Your task to perform on an android device: Open CNN.com Image 0: 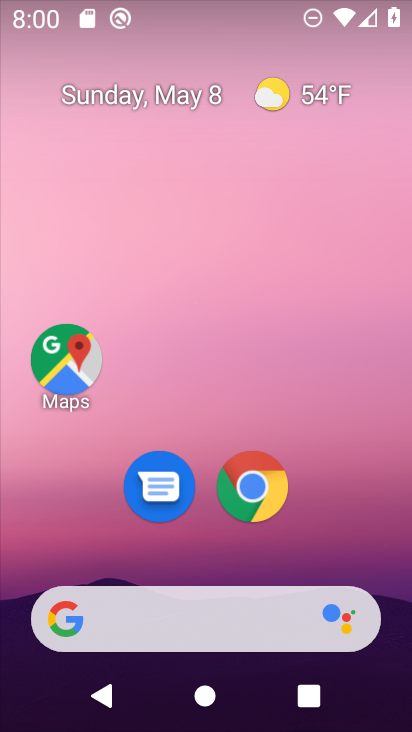
Step 0: click (241, 488)
Your task to perform on an android device: Open CNN.com Image 1: 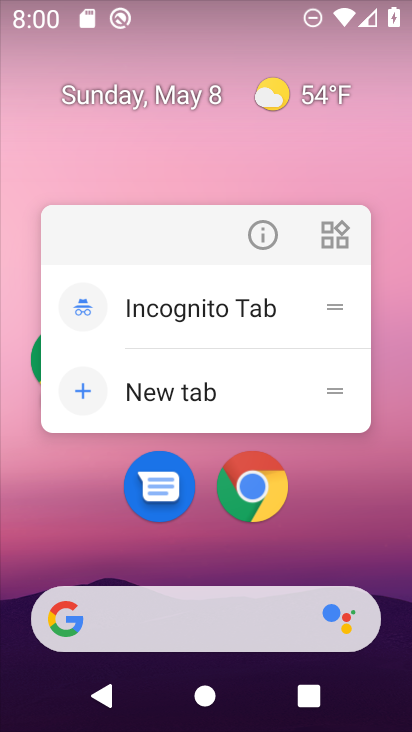
Step 1: click (255, 236)
Your task to perform on an android device: Open CNN.com Image 2: 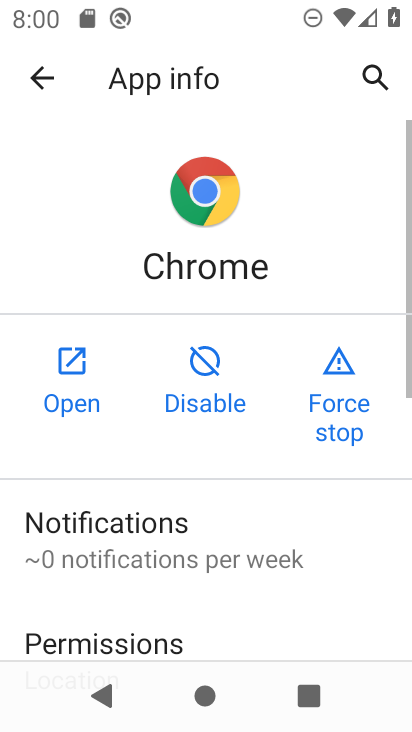
Step 2: click (59, 370)
Your task to perform on an android device: Open CNN.com Image 3: 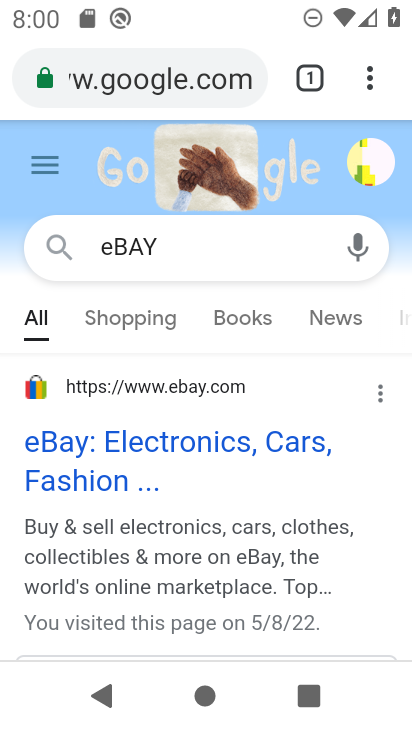
Step 3: click (162, 81)
Your task to perform on an android device: Open CNN.com Image 4: 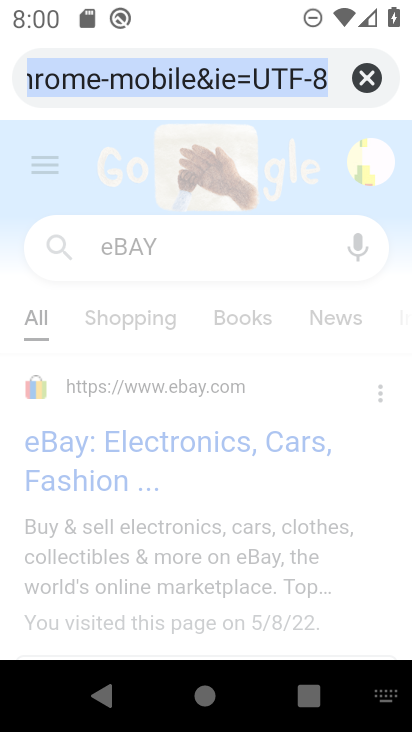
Step 4: type "CNN.com"
Your task to perform on an android device: Open CNN.com Image 5: 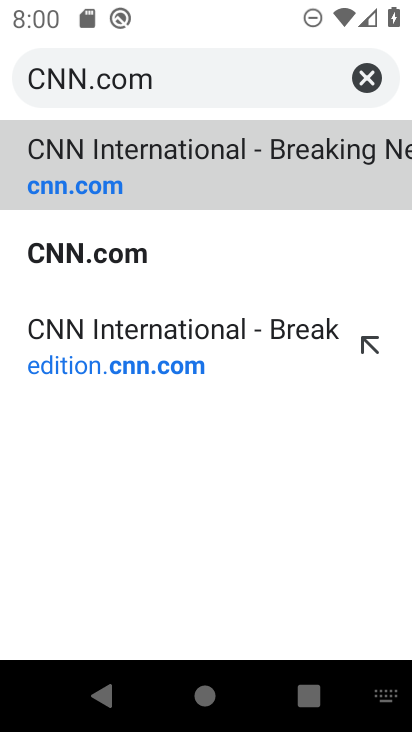
Step 5: click (160, 174)
Your task to perform on an android device: Open CNN.com Image 6: 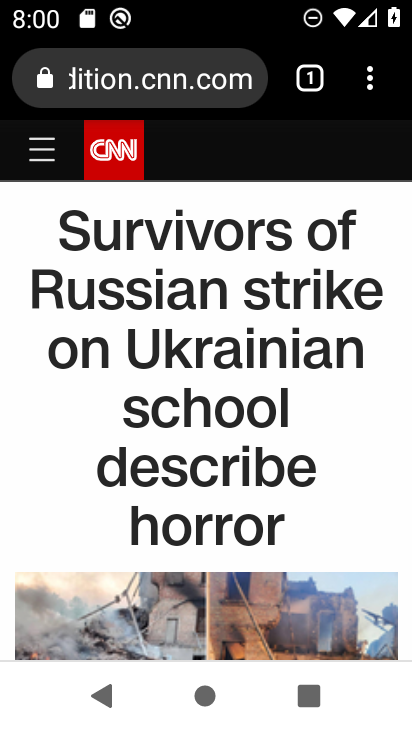
Step 6: task complete